Your task to perform on an android device: open app "ColorNote Notepad Notes" (install if not already installed) Image 0: 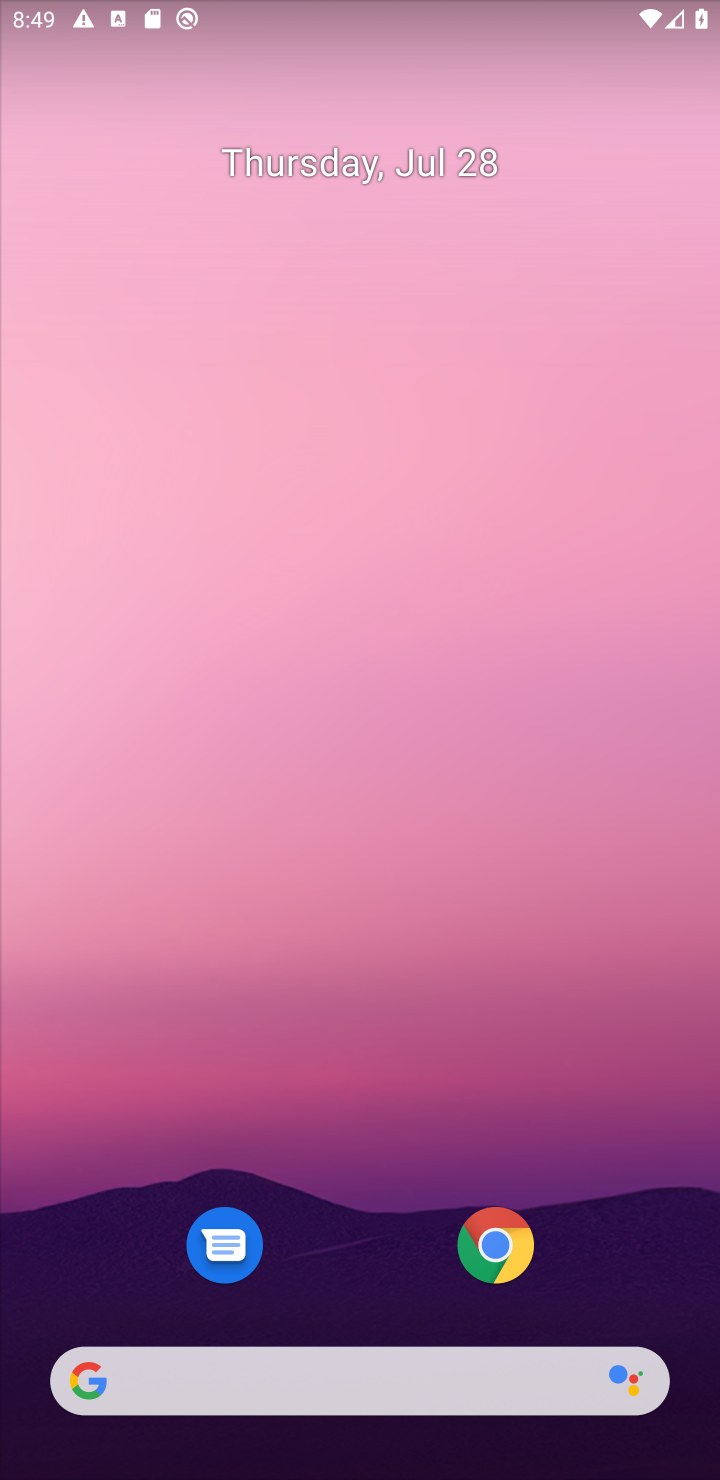
Step 0: drag from (336, 1250) to (480, 206)
Your task to perform on an android device: open app "ColorNote Notepad Notes" (install if not already installed) Image 1: 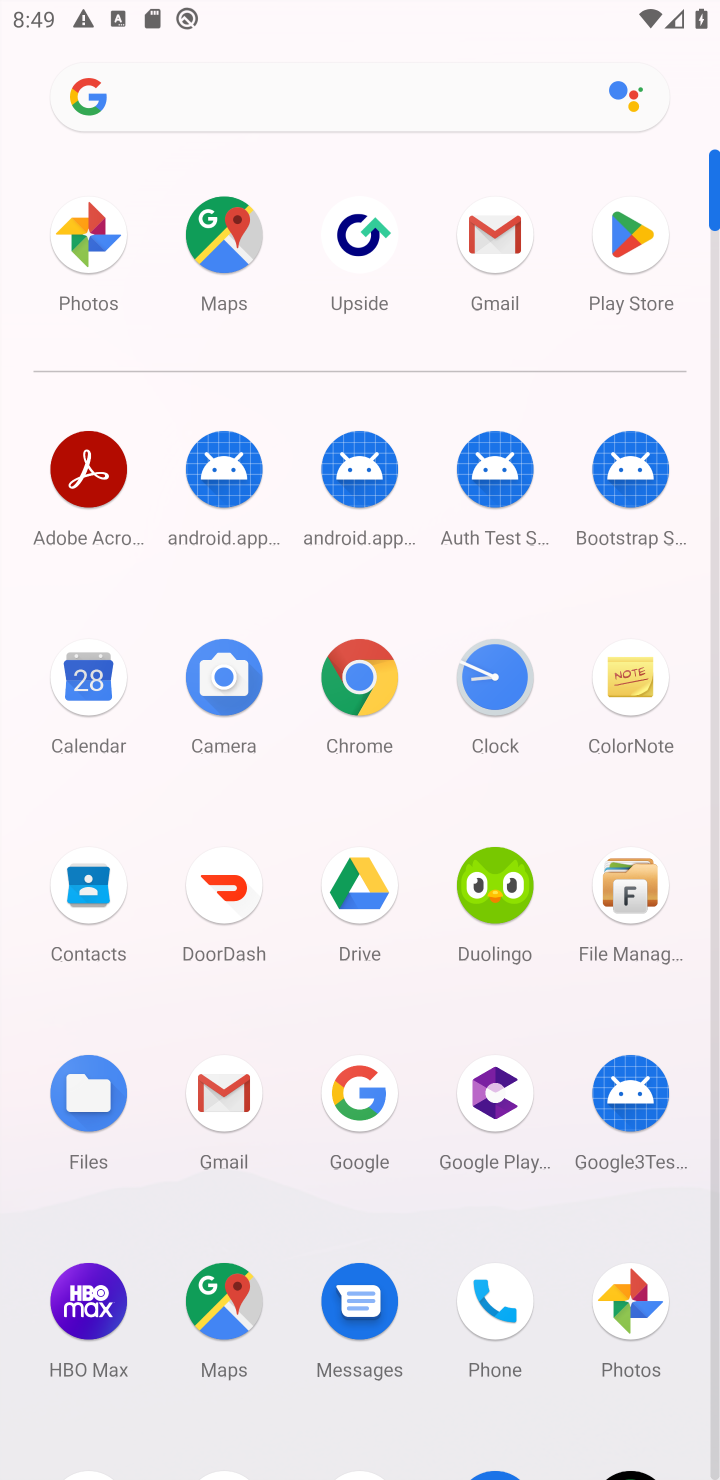
Step 1: click (611, 228)
Your task to perform on an android device: open app "ColorNote Notepad Notes" (install if not already installed) Image 2: 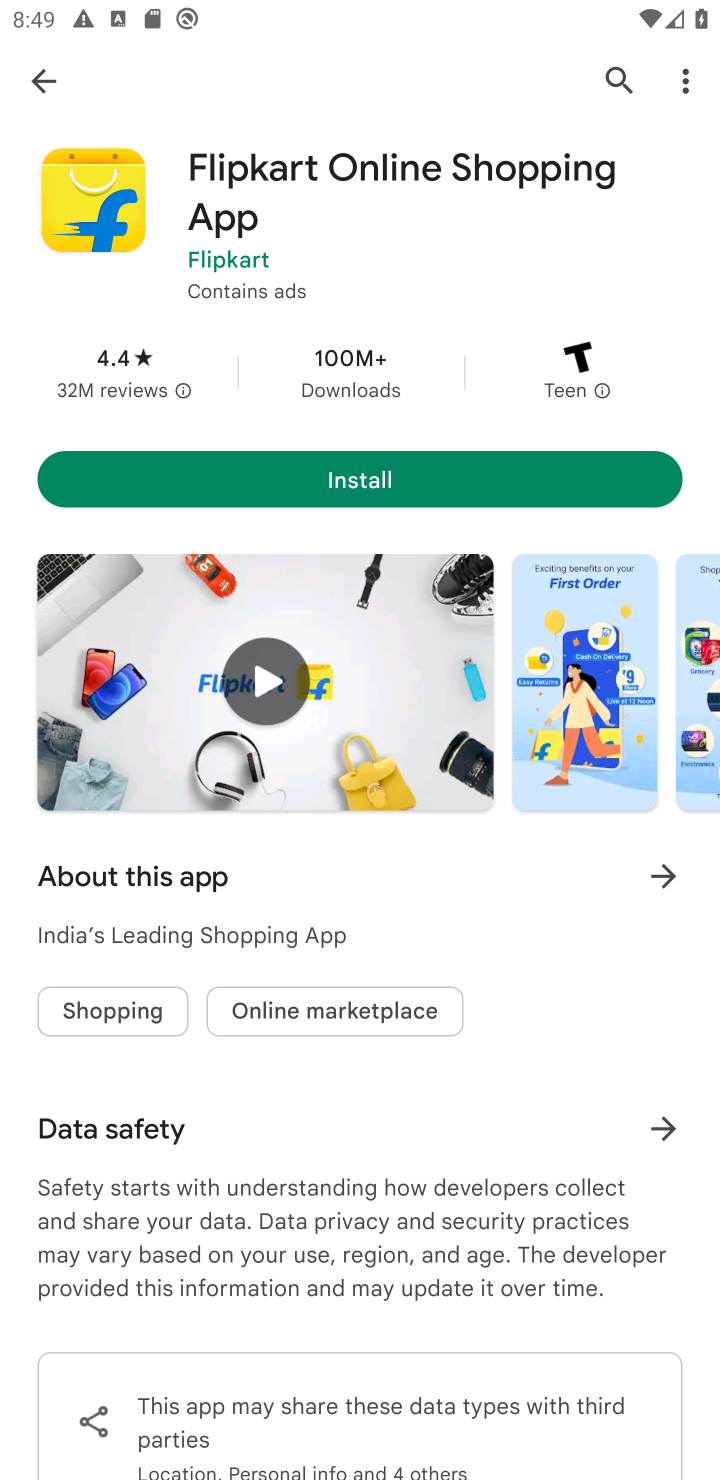
Step 2: click (610, 60)
Your task to perform on an android device: open app "ColorNote Notepad Notes" (install if not already installed) Image 3: 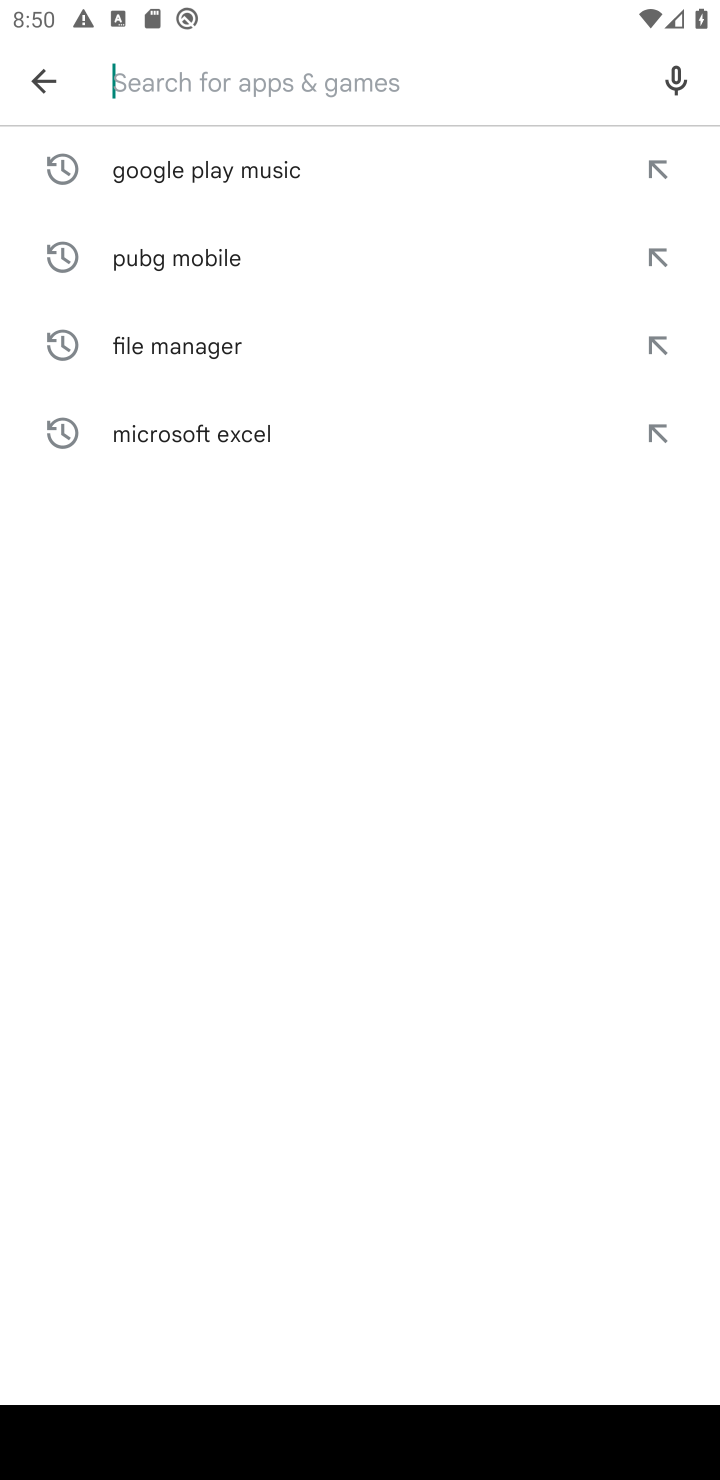
Step 3: type "ColorNote Notepad Notes"
Your task to perform on an android device: open app "ColorNote Notepad Notes" (install if not already installed) Image 4: 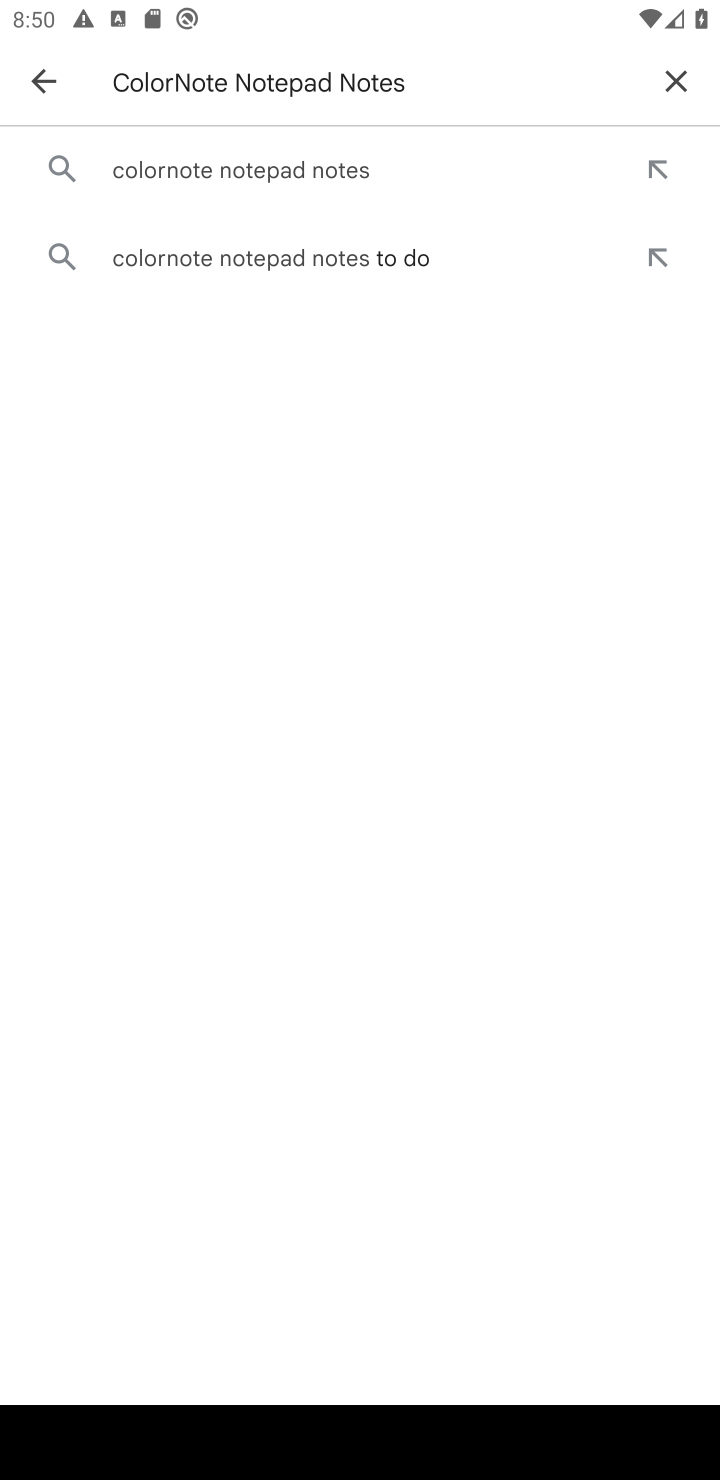
Step 4: click (326, 166)
Your task to perform on an android device: open app "ColorNote Notepad Notes" (install if not already installed) Image 5: 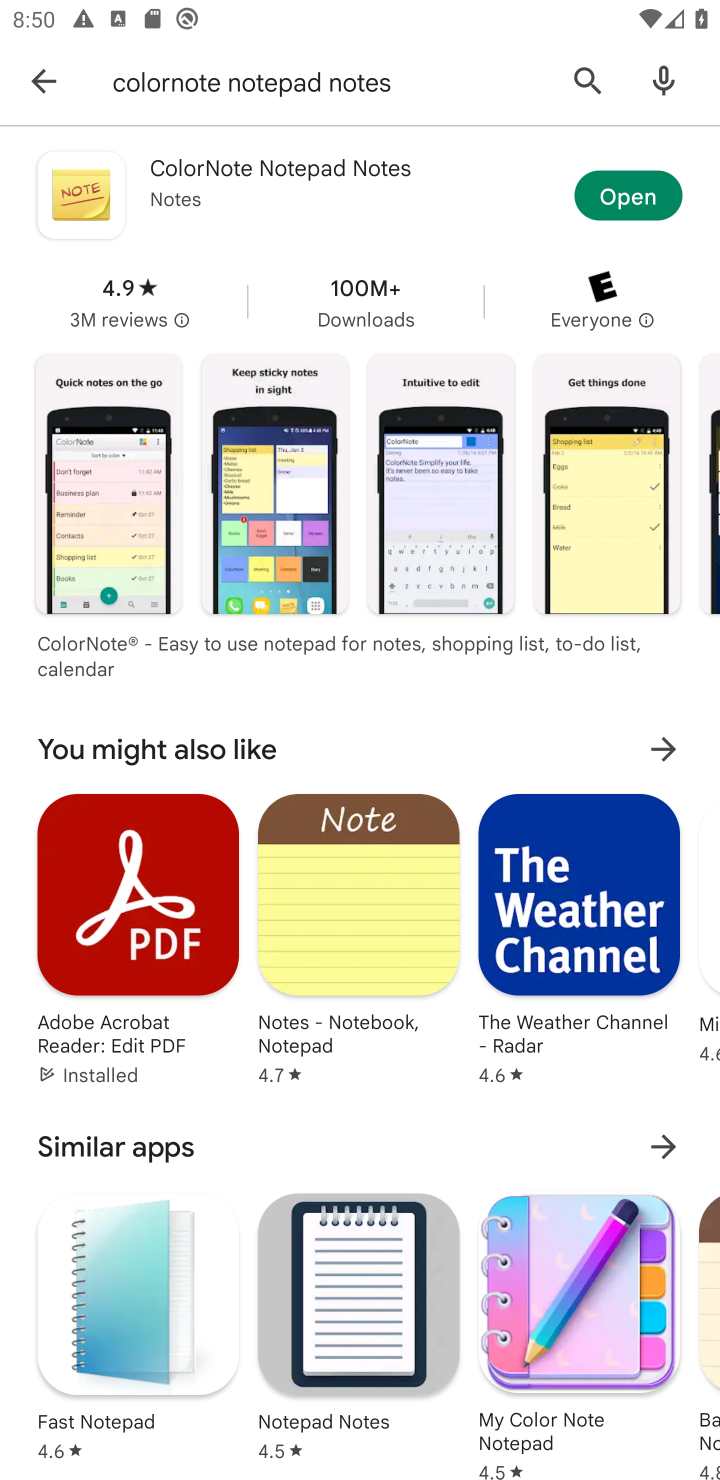
Step 5: click (377, 193)
Your task to perform on an android device: open app "ColorNote Notepad Notes" (install if not already installed) Image 6: 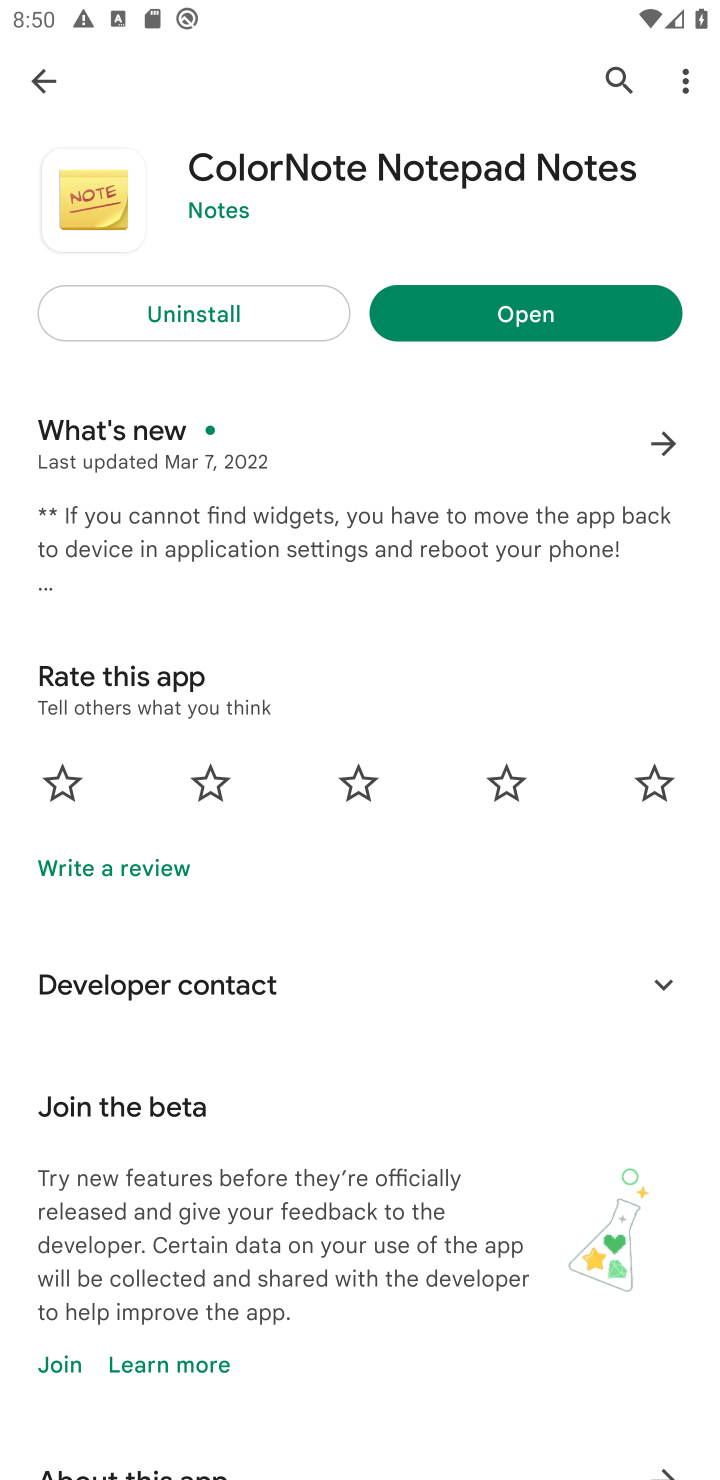
Step 6: click (544, 313)
Your task to perform on an android device: open app "ColorNote Notepad Notes" (install if not already installed) Image 7: 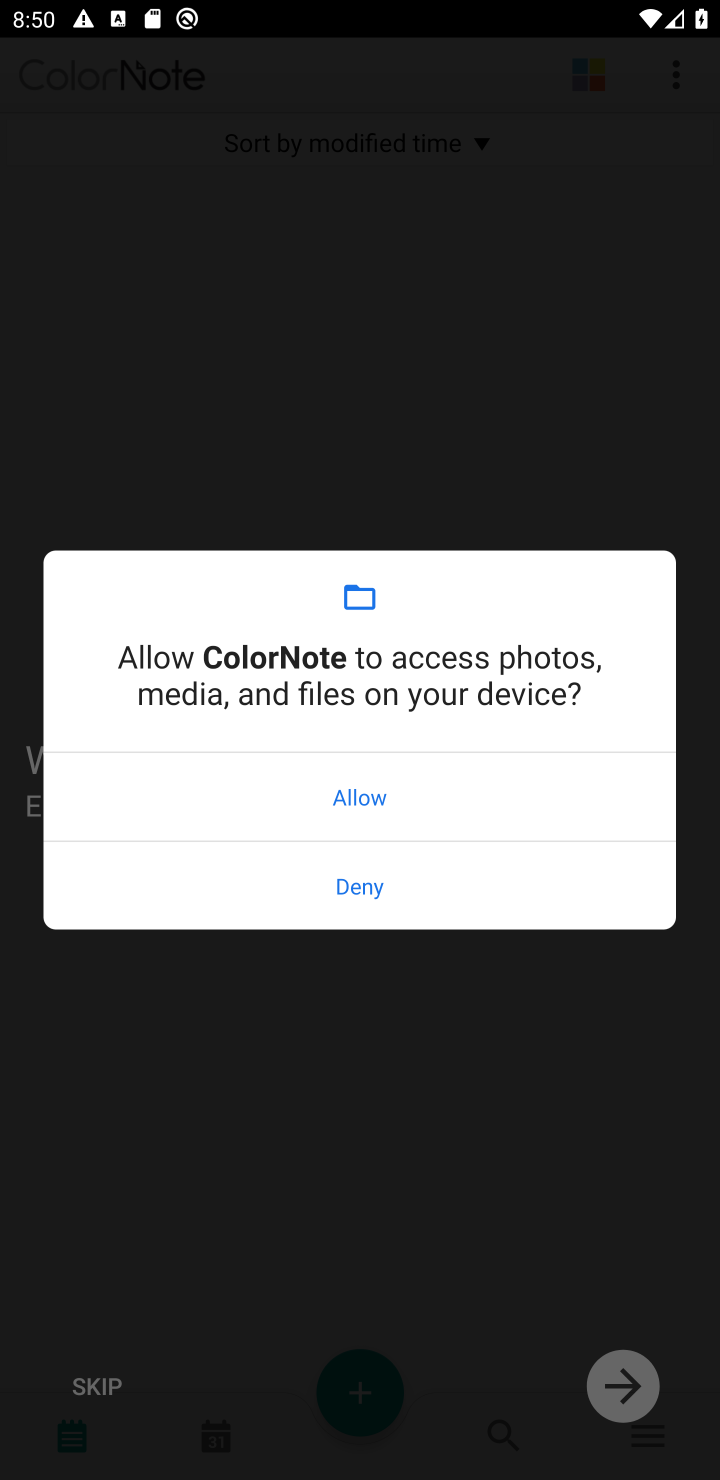
Step 7: task complete